Your task to perform on an android device: open a new tab in the chrome app Image 0: 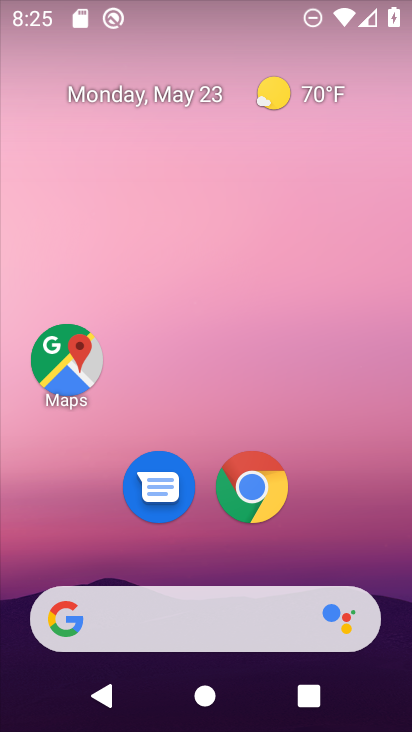
Step 0: click (256, 488)
Your task to perform on an android device: open a new tab in the chrome app Image 1: 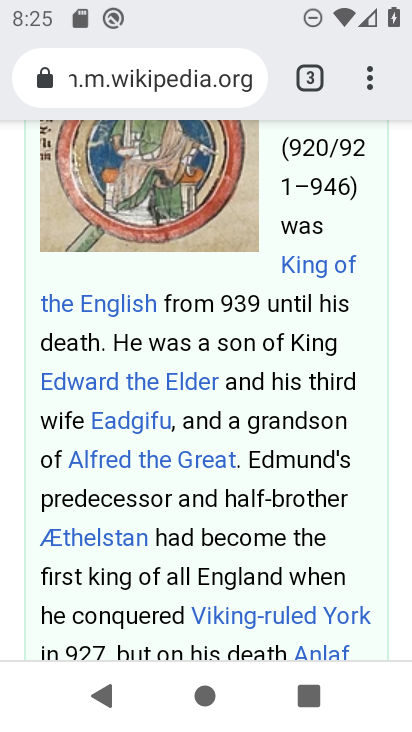
Step 1: click (368, 71)
Your task to perform on an android device: open a new tab in the chrome app Image 2: 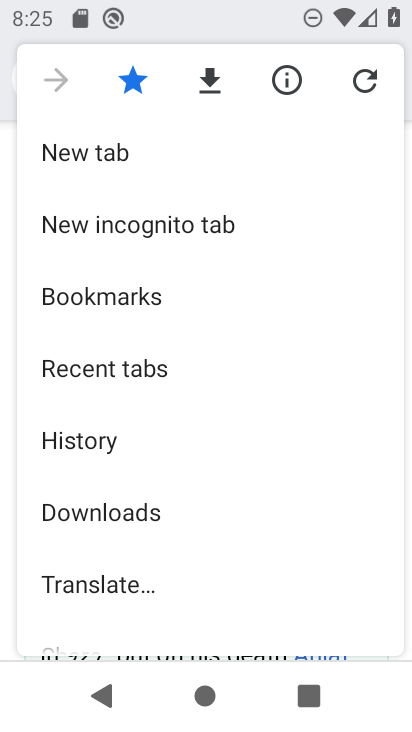
Step 2: click (76, 162)
Your task to perform on an android device: open a new tab in the chrome app Image 3: 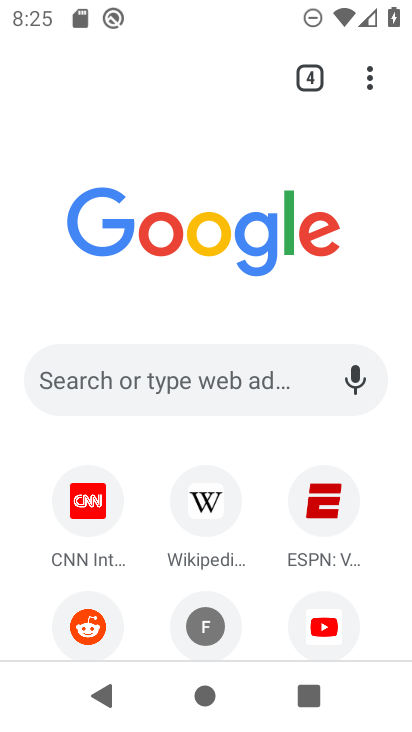
Step 3: task complete